Your task to perform on an android device: turn off javascript in the chrome app Image 0: 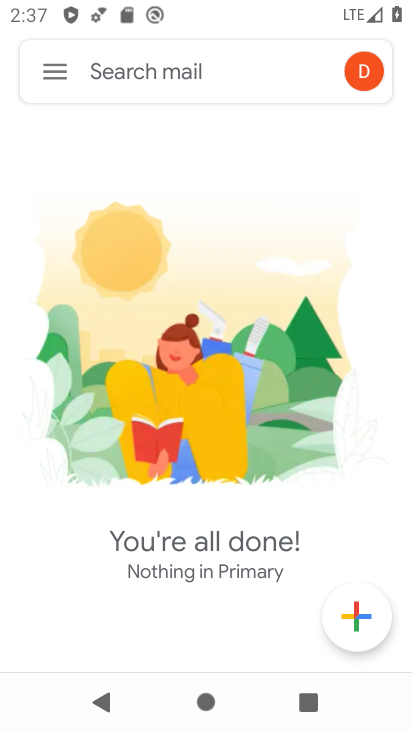
Step 0: press home button
Your task to perform on an android device: turn off javascript in the chrome app Image 1: 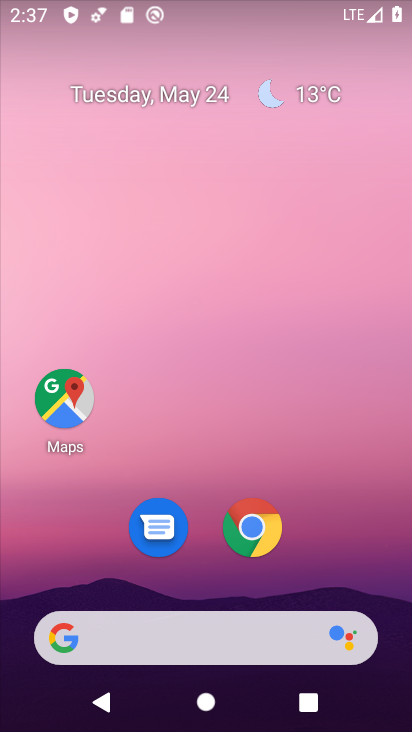
Step 1: click (253, 525)
Your task to perform on an android device: turn off javascript in the chrome app Image 2: 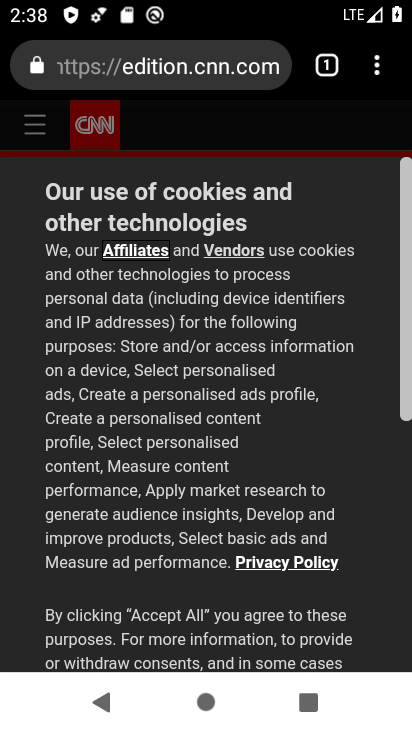
Step 2: click (378, 60)
Your task to perform on an android device: turn off javascript in the chrome app Image 3: 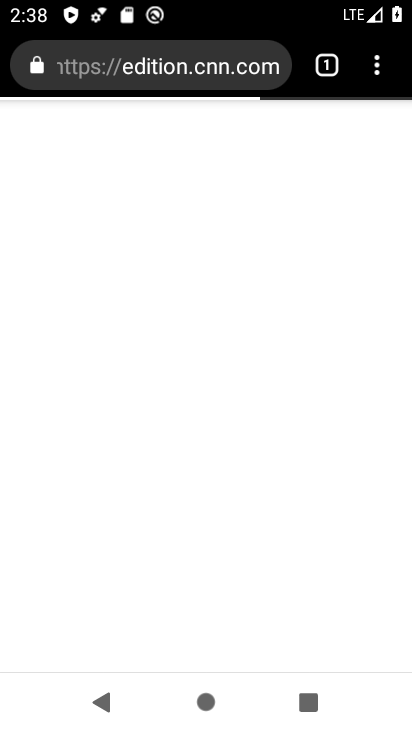
Step 3: click (377, 66)
Your task to perform on an android device: turn off javascript in the chrome app Image 4: 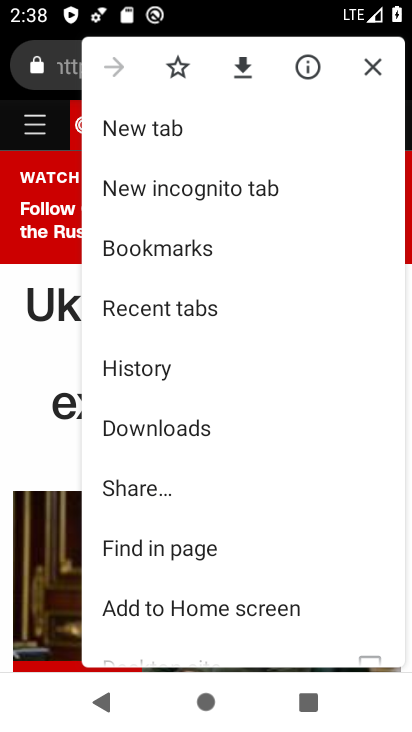
Step 4: drag from (225, 591) to (227, 330)
Your task to perform on an android device: turn off javascript in the chrome app Image 5: 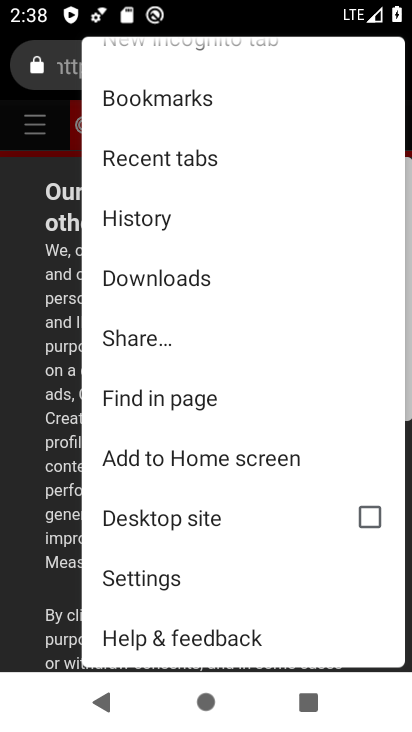
Step 5: click (211, 585)
Your task to perform on an android device: turn off javascript in the chrome app Image 6: 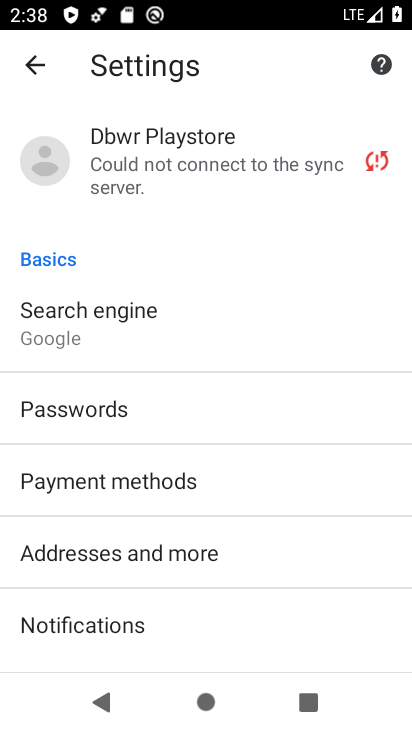
Step 6: drag from (176, 613) to (174, 249)
Your task to perform on an android device: turn off javascript in the chrome app Image 7: 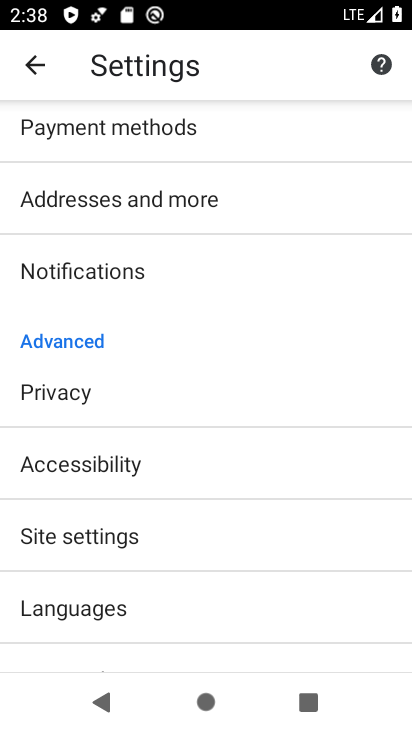
Step 7: click (163, 543)
Your task to perform on an android device: turn off javascript in the chrome app Image 8: 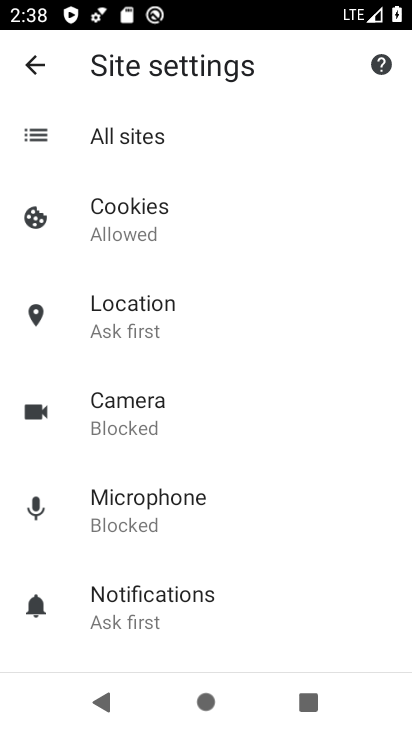
Step 8: drag from (179, 630) to (155, 420)
Your task to perform on an android device: turn off javascript in the chrome app Image 9: 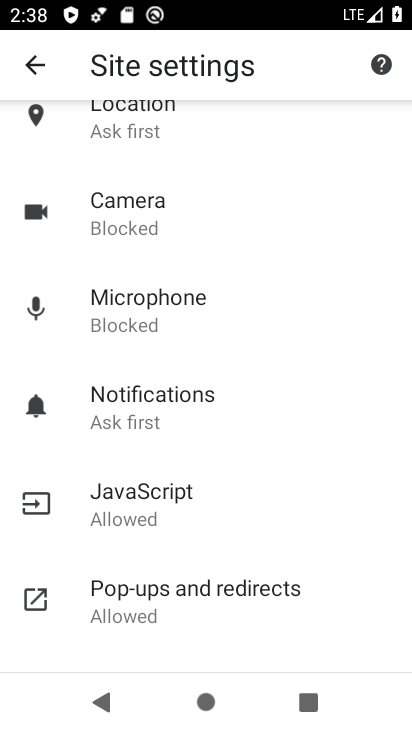
Step 9: click (158, 518)
Your task to perform on an android device: turn off javascript in the chrome app Image 10: 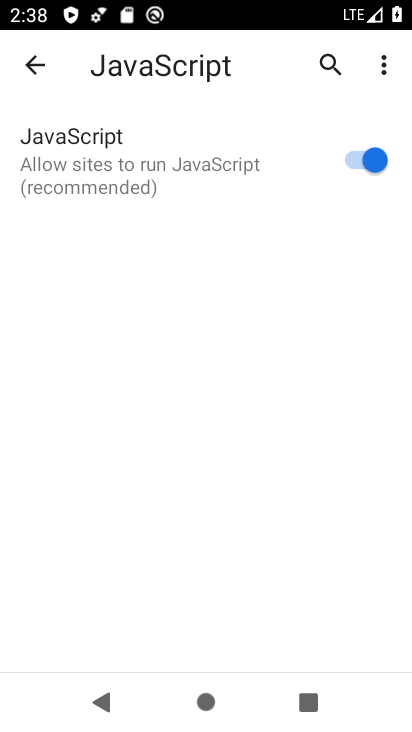
Step 10: click (369, 169)
Your task to perform on an android device: turn off javascript in the chrome app Image 11: 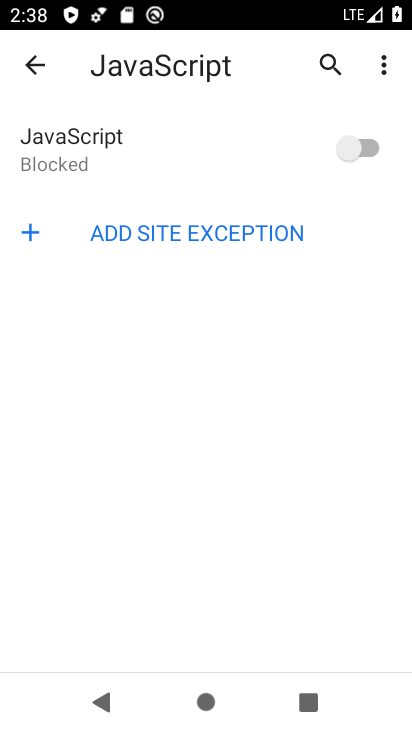
Step 11: task complete